Your task to perform on an android device: set default search engine in the chrome app Image 0: 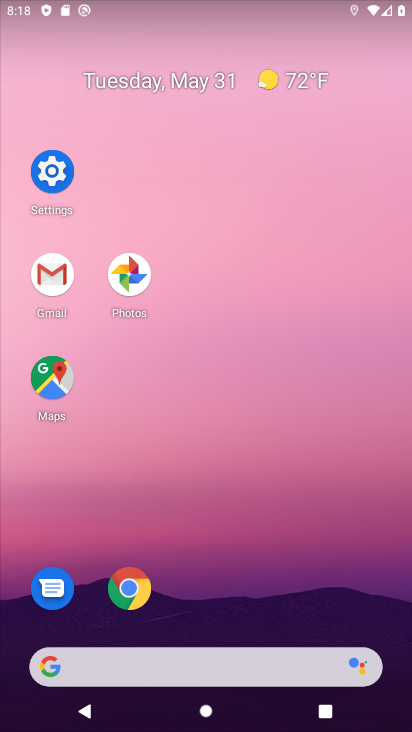
Step 0: click (131, 590)
Your task to perform on an android device: set default search engine in the chrome app Image 1: 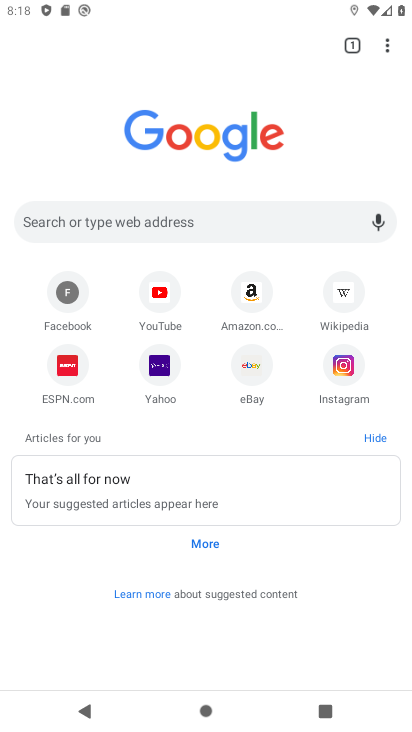
Step 1: click (384, 43)
Your task to perform on an android device: set default search engine in the chrome app Image 2: 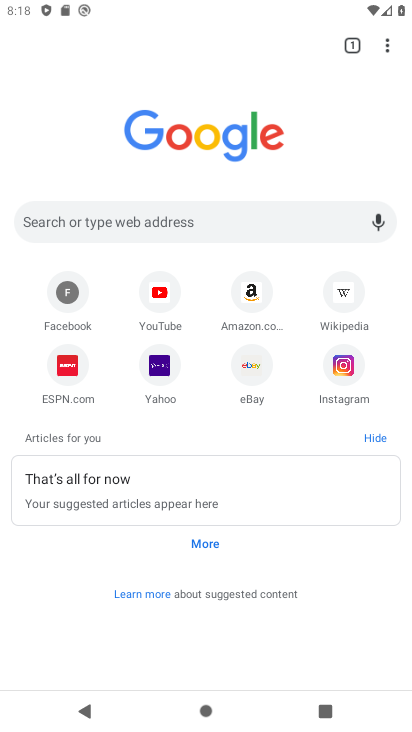
Step 2: click (397, 47)
Your task to perform on an android device: set default search engine in the chrome app Image 3: 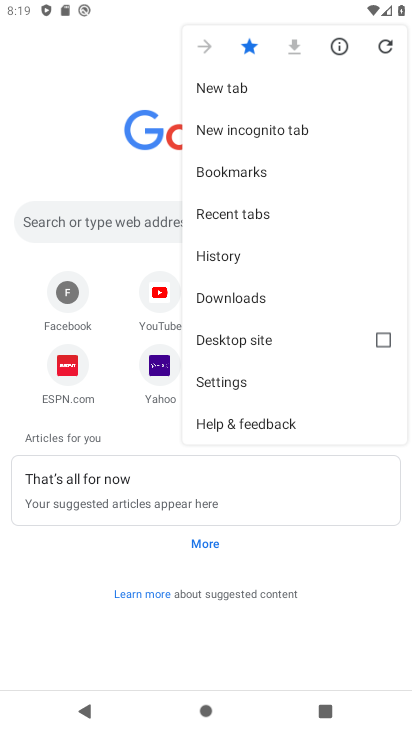
Step 3: click (288, 383)
Your task to perform on an android device: set default search engine in the chrome app Image 4: 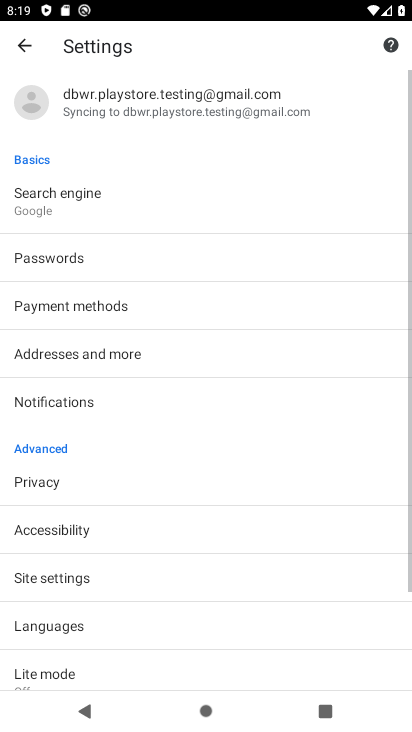
Step 4: click (95, 194)
Your task to perform on an android device: set default search engine in the chrome app Image 5: 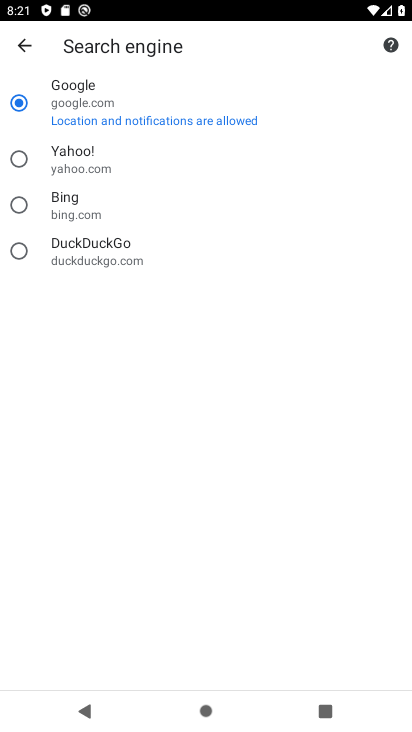
Step 5: task complete